Your task to perform on an android device: Open Amazon Image 0: 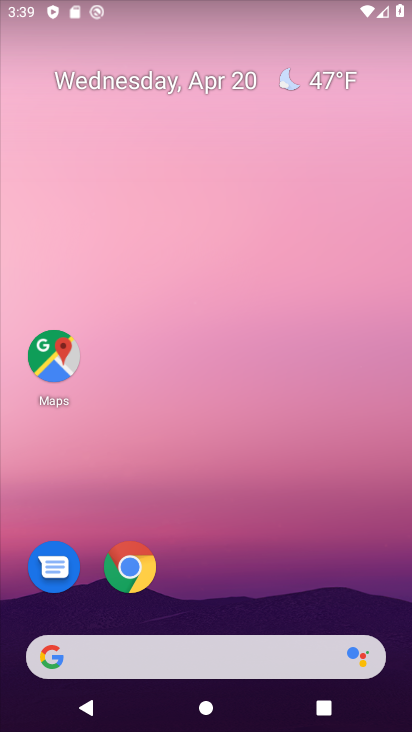
Step 0: click (128, 570)
Your task to perform on an android device: Open Amazon Image 1: 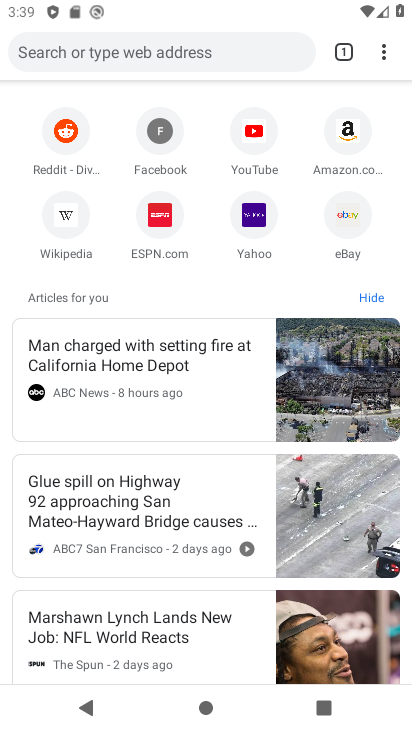
Step 1: click (358, 141)
Your task to perform on an android device: Open Amazon Image 2: 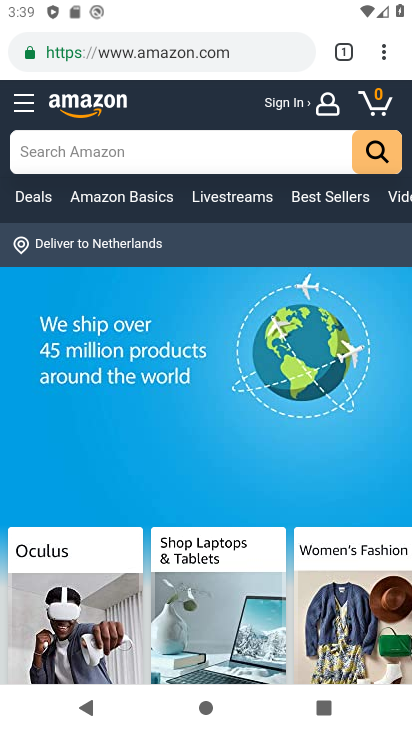
Step 2: task complete